Your task to perform on an android device: Search for "rayovac triple a" on ebay, select the first entry, and add it to the cart. Image 0: 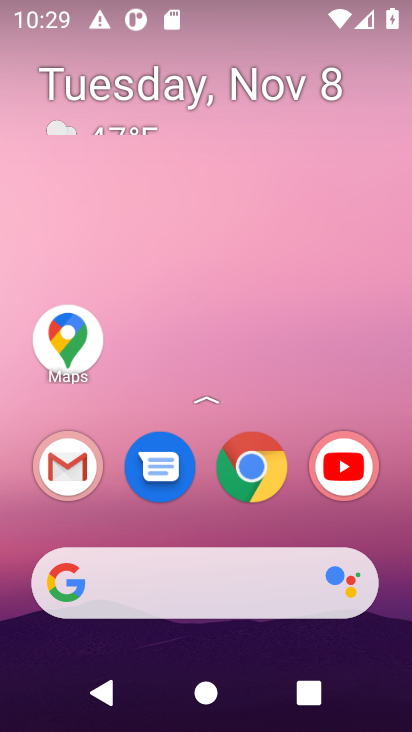
Step 0: click (286, 569)
Your task to perform on an android device: Search for "rayovac triple a" on ebay, select the first entry, and add it to the cart. Image 1: 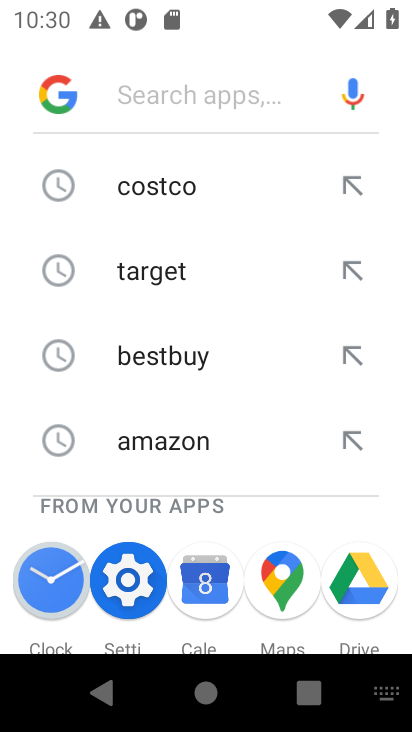
Step 1: type "ebay"
Your task to perform on an android device: Search for "rayovac triple a" on ebay, select the first entry, and add it to the cart. Image 2: 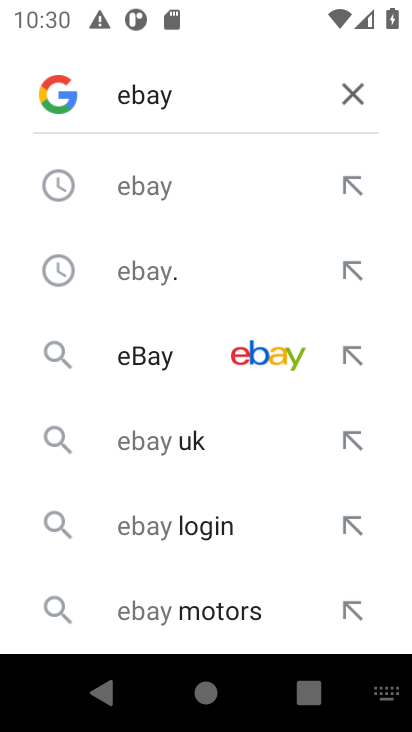
Step 2: click (163, 196)
Your task to perform on an android device: Search for "rayovac triple a" on ebay, select the first entry, and add it to the cart. Image 3: 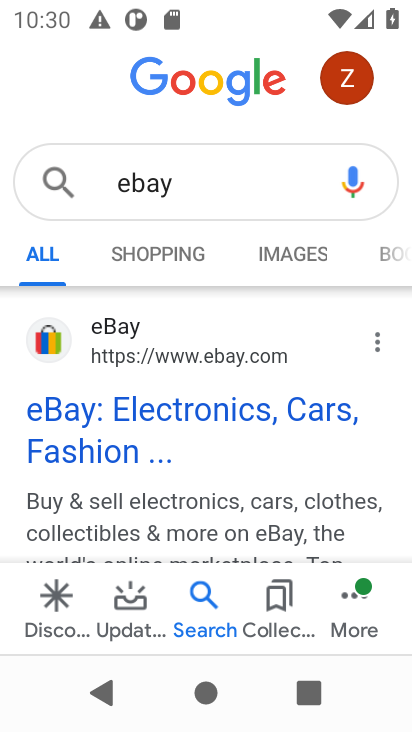
Step 3: click (100, 411)
Your task to perform on an android device: Search for "rayovac triple a" on ebay, select the first entry, and add it to the cart. Image 4: 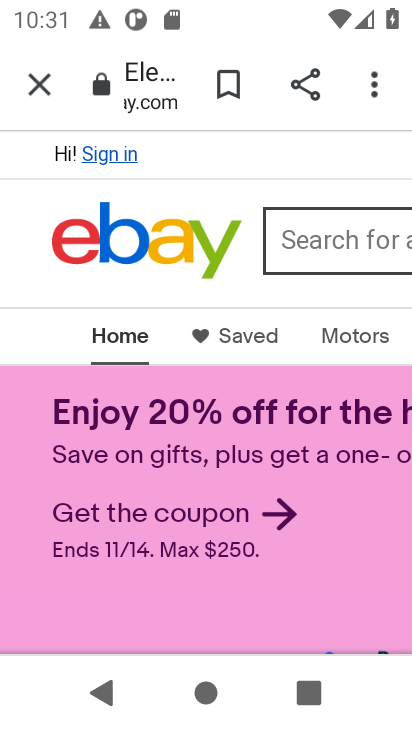
Step 4: task complete